Your task to perform on an android device: check android version Image 0: 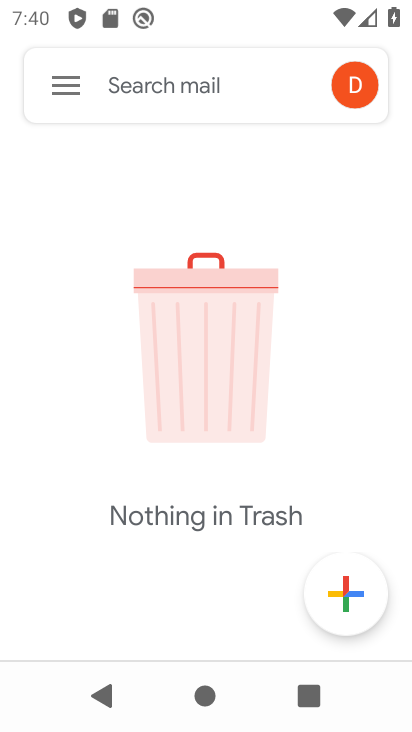
Step 0: press home button
Your task to perform on an android device: check android version Image 1: 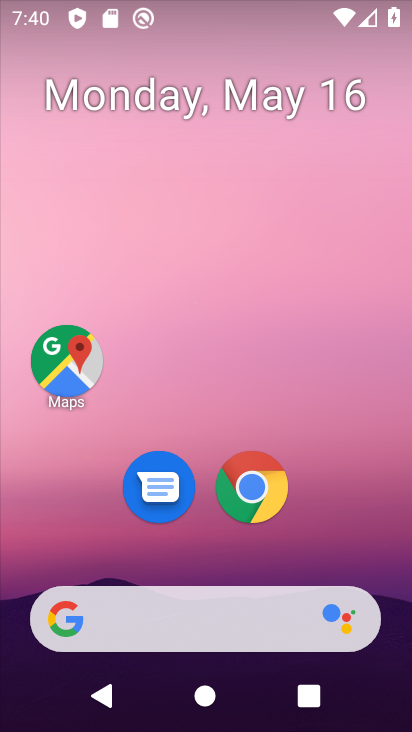
Step 1: drag from (299, 460) to (307, 64)
Your task to perform on an android device: check android version Image 2: 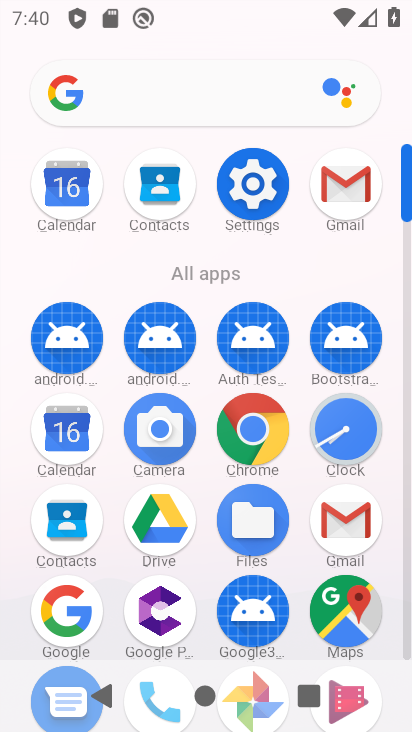
Step 2: click (259, 195)
Your task to perform on an android device: check android version Image 3: 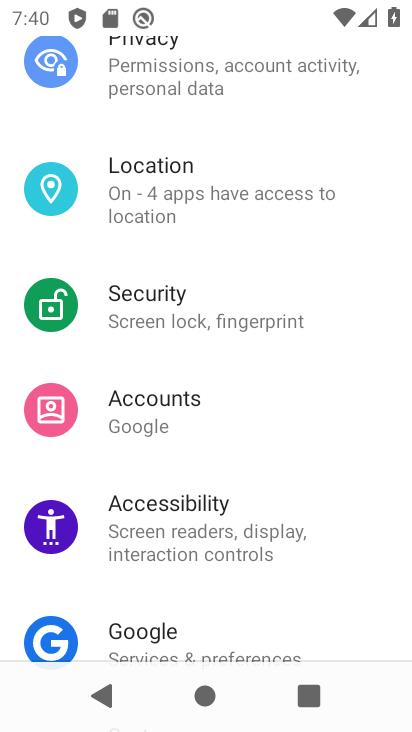
Step 3: drag from (210, 558) to (242, 122)
Your task to perform on an android device: check android version Image 4: 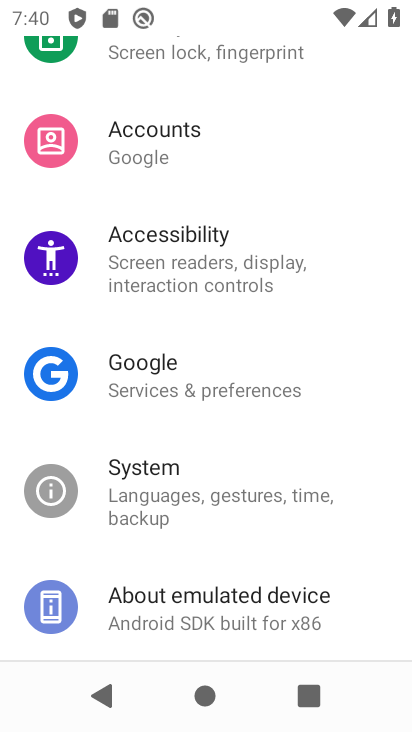
Step 4: click (143, 611)
Your task to perform on an android device: check android version Image 5: 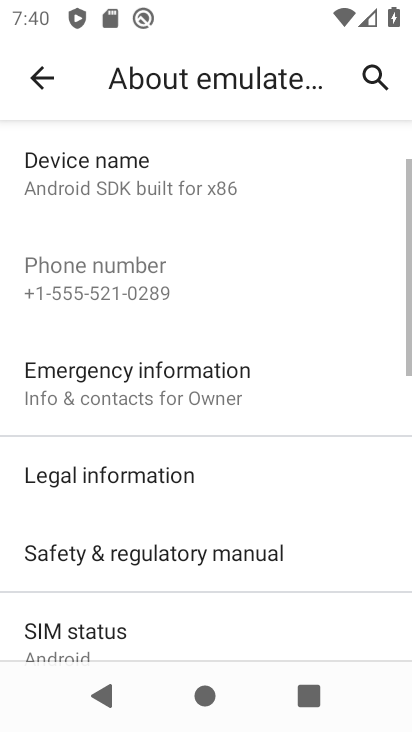
Step 5: drag from (179, 541) to (216, 222)
Your task to perform on an android device: check android version Image 6: 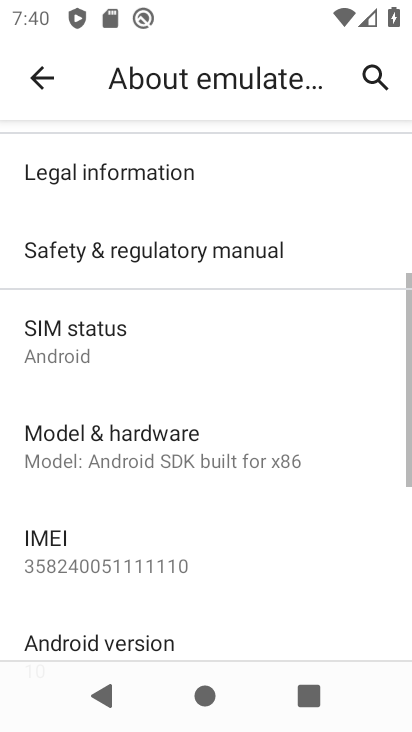
Step 6: drag from (175, 577) to (199, 372)
Your task to perform on an android device: check android version Image 7: 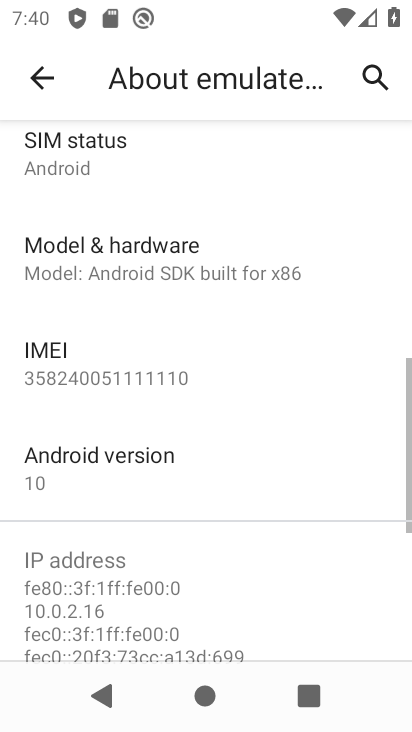
Step 7: click (160, 462)
Your task to perform on an android device: check android version Image 8: 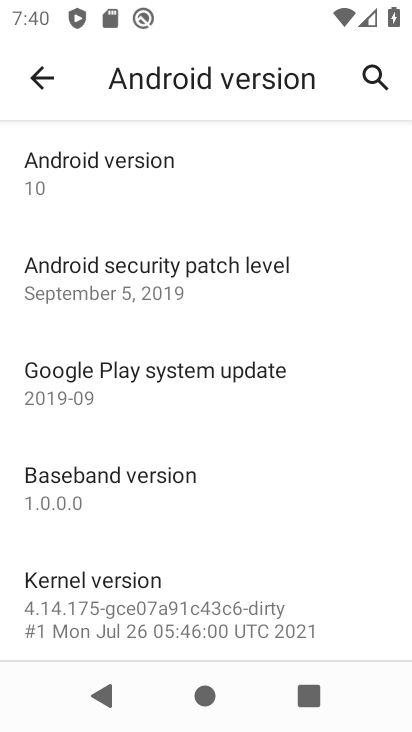
Step 8: task complete